Your task to perform on an android device: When is my next meeting? Image 0: 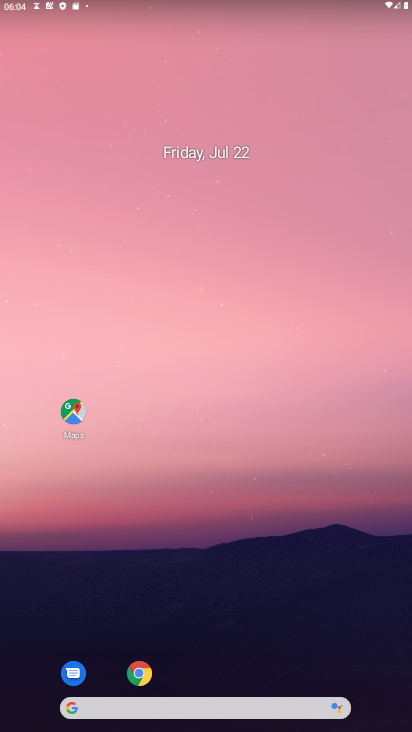
Step 0: drag from (264, 640) to (268, 264)
Your task to perform on an android device: When is my next meeting? Image 1: 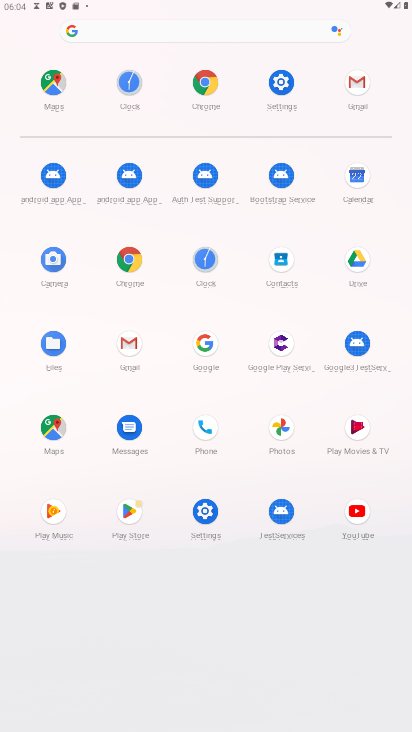
Step 1: click (360, 178)
Your task to perform on an android device: When is my next meeting? Image 2: 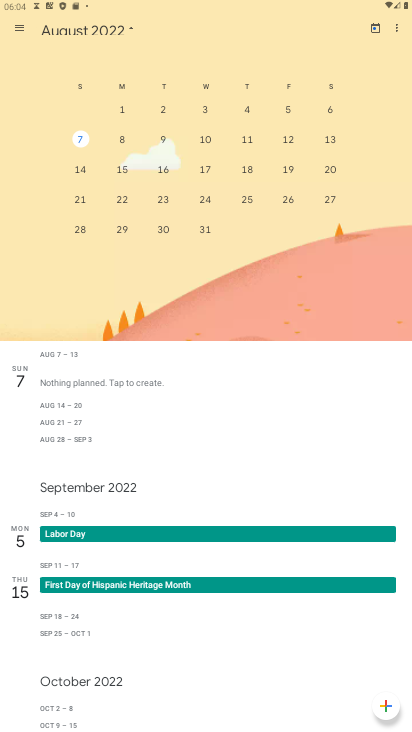
Step 2: click (21, 24)
Your task to perform on an android device: When is my next meeting? Image 3: 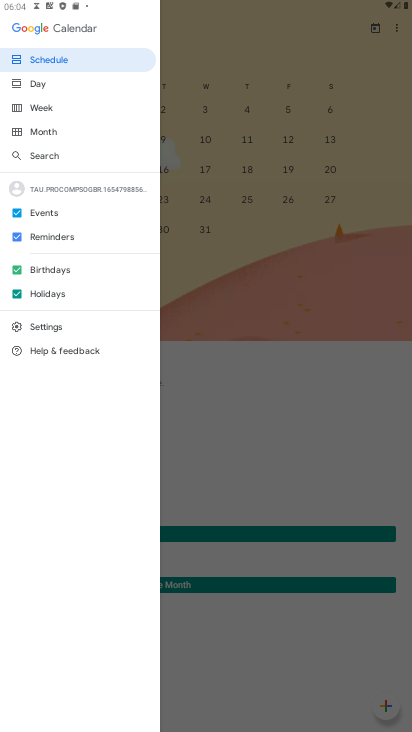
Step 3: click (25, 60)
Your task to perform on an android device: When is my next meeting? Image 4: 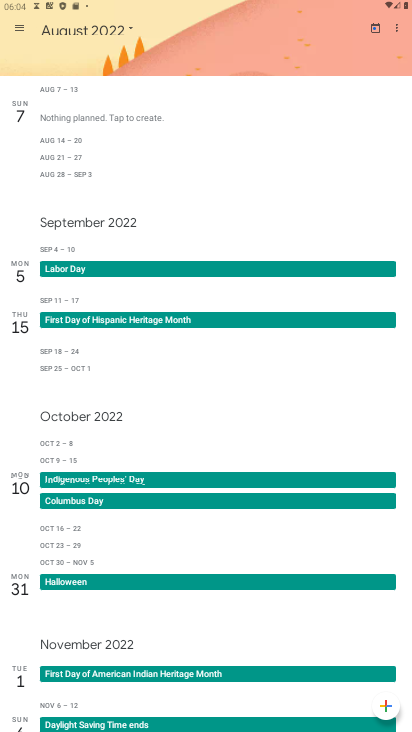
Step 4: task complete